Your task to perform on an android device: Open display settings Image 0: 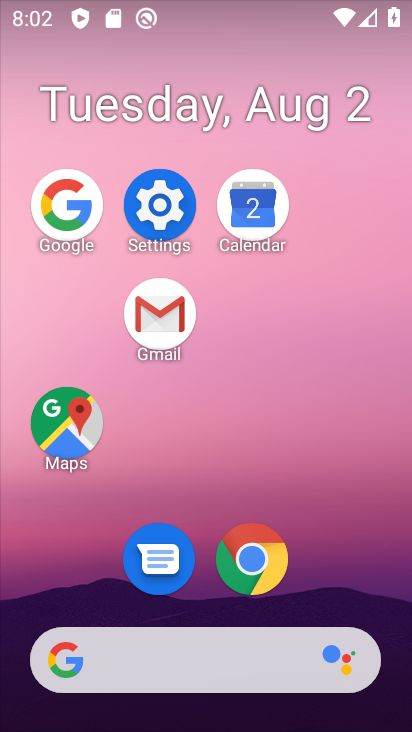
Step 0: click (156, 217)
Your task to perform on an android device: Open display settings Image 1: 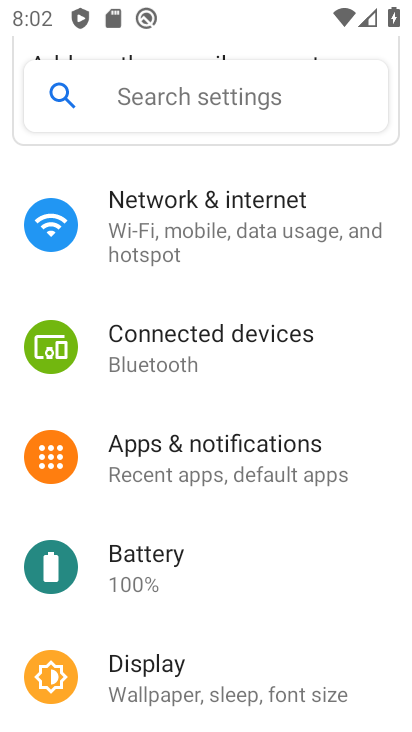
Step 1: click (309, 693)
Your task to perform on an android device: Open display settings Image 2: 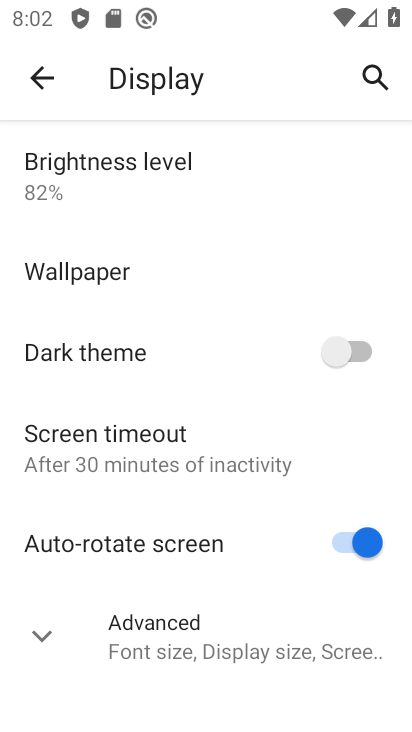
Step 2: task complete